Your task to perform on an android device: open app "Google Play Music" Image 0: 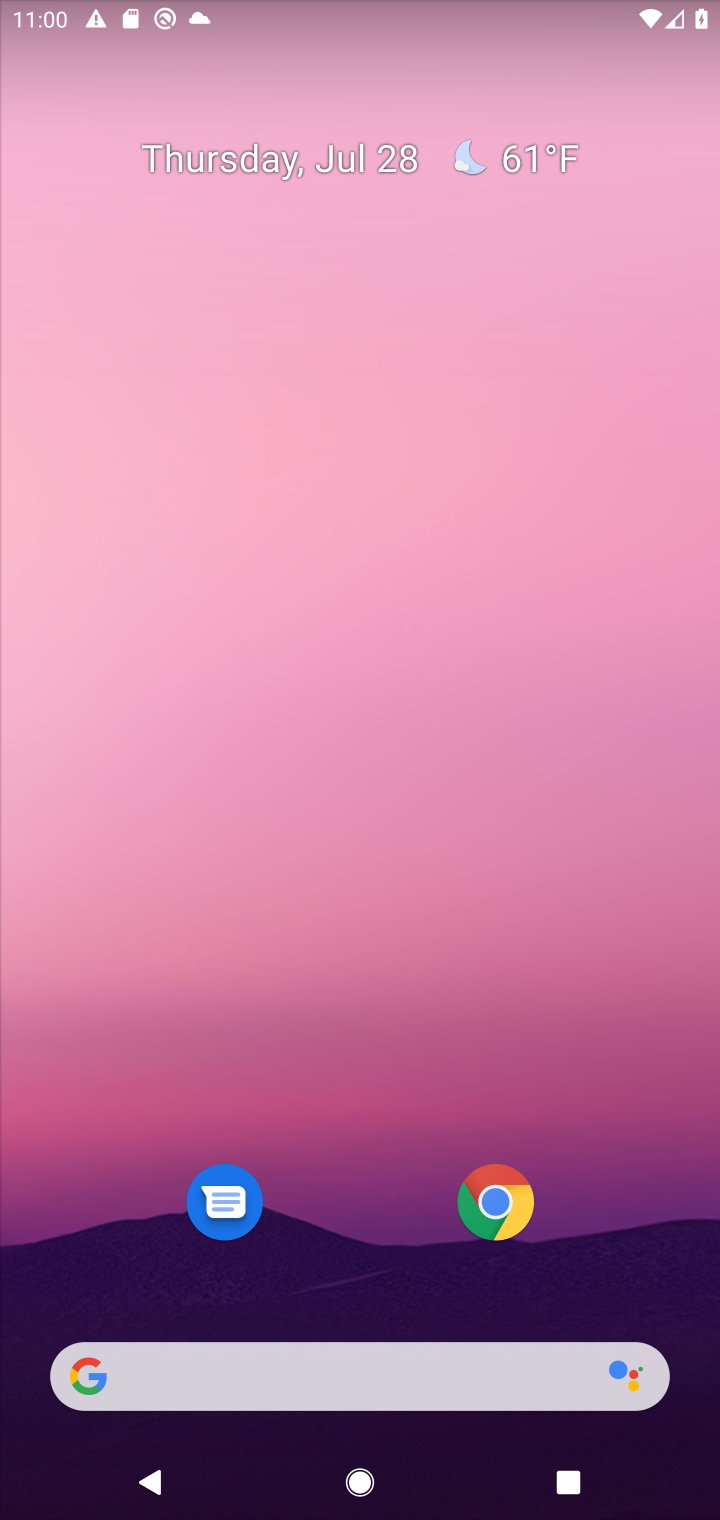
Step 0: click (403, 1369)
Your task to perform on an android device: open app "Google Play Music" Image 1: 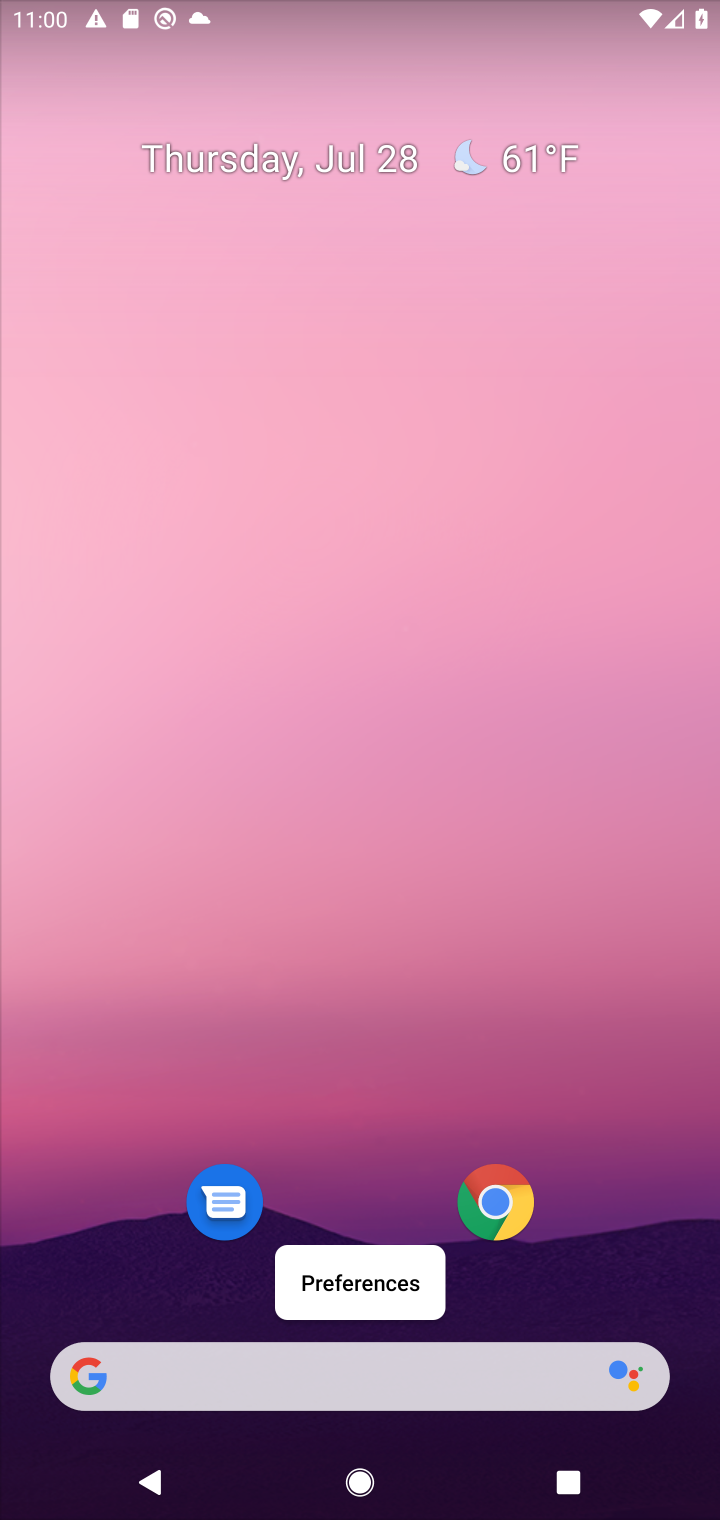
Step 1: type "google play music"
Your task to perform on an android device: open app "Google Play Music" Image 2: 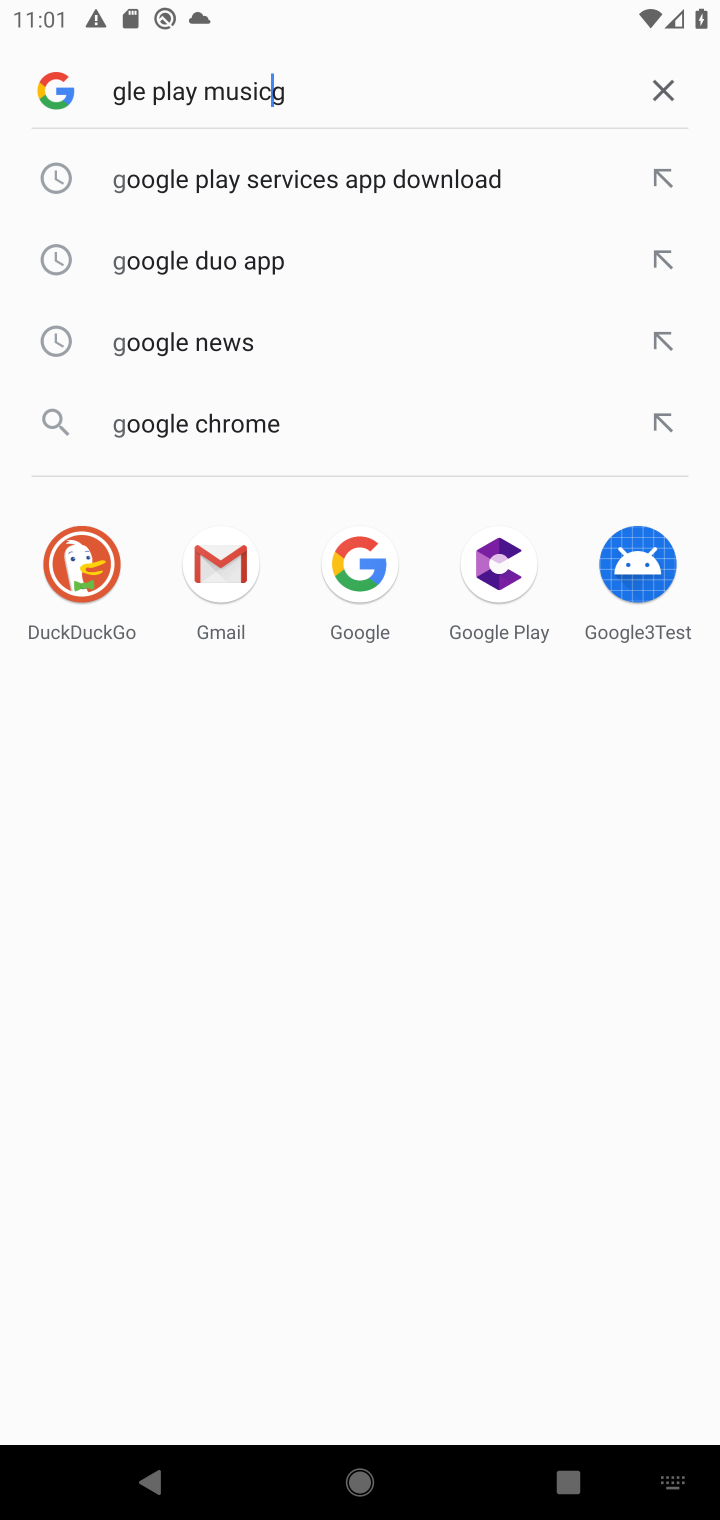
Step 2: click (473, 1354)
Your task to perform on an android device: open app "Google Play Music" Image 3: 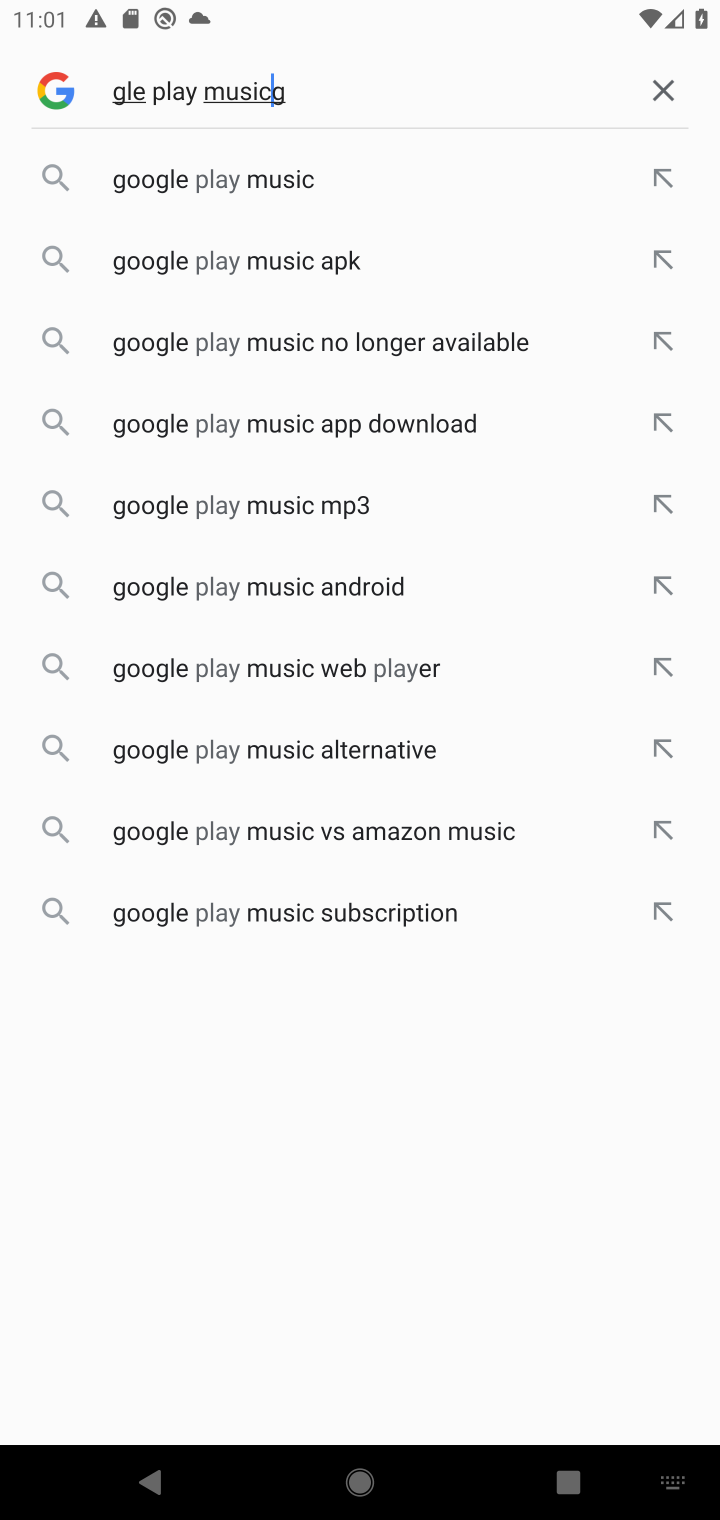
Step 3: click (345, 193)
Your task to perform on an android device: open app "Google Play Music" Image 4: 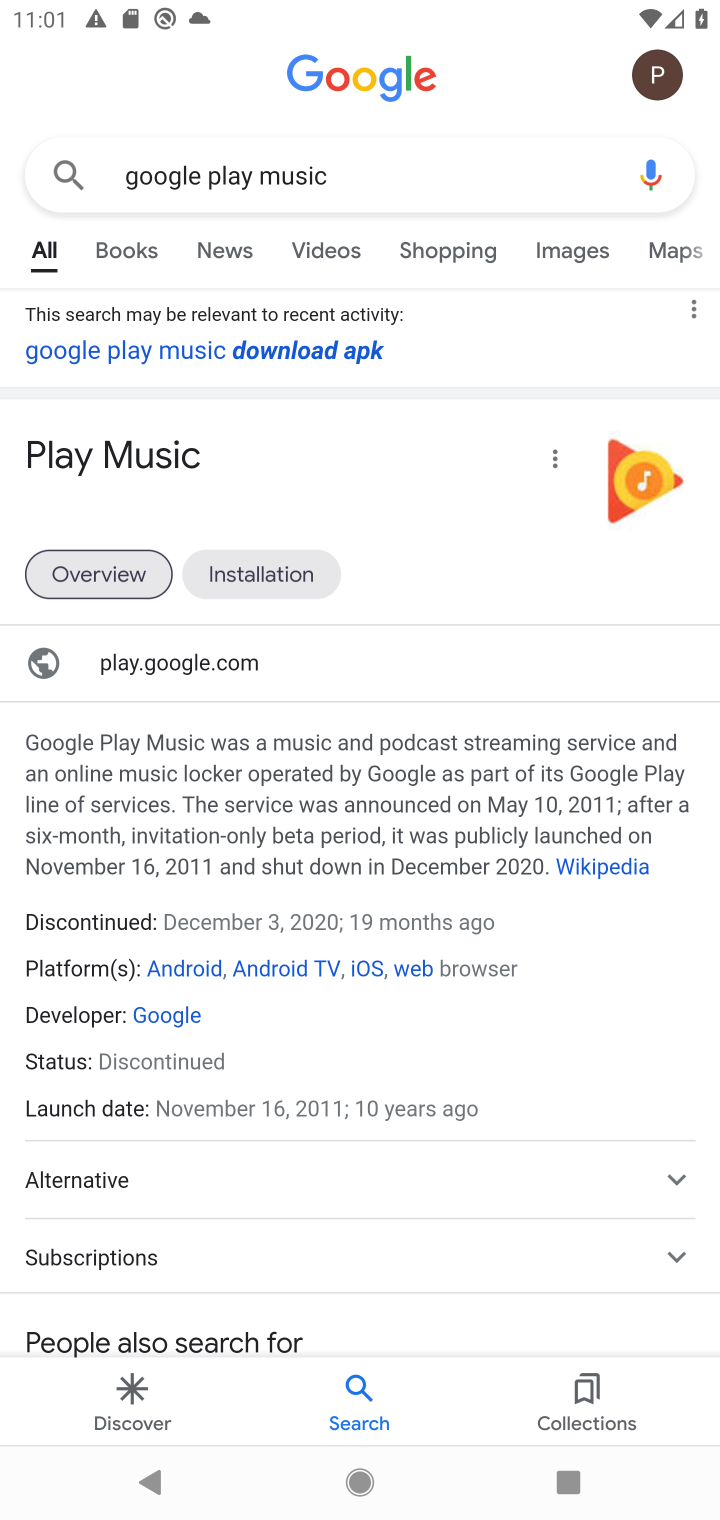
Step 4: task complete